Your task to perform on an android device: change the clock style Image 0: 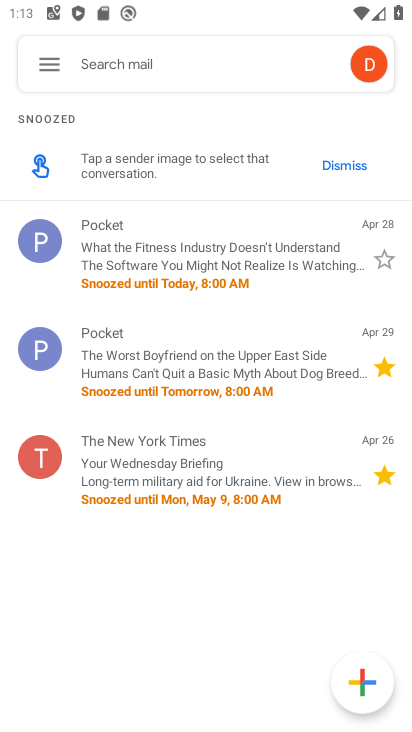
Step 0: press home button
Your task to perform on an android device: change the clock style Image 1: 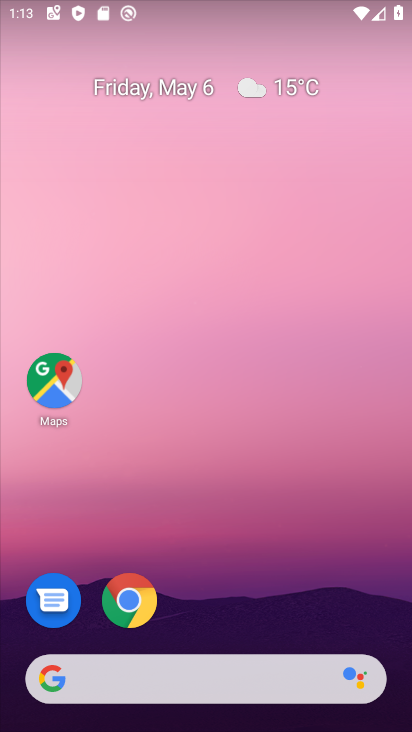
Step 1: drag from (327, 626) to (313, 83)
Your task to perform on an android device: change the clock style Image 2: 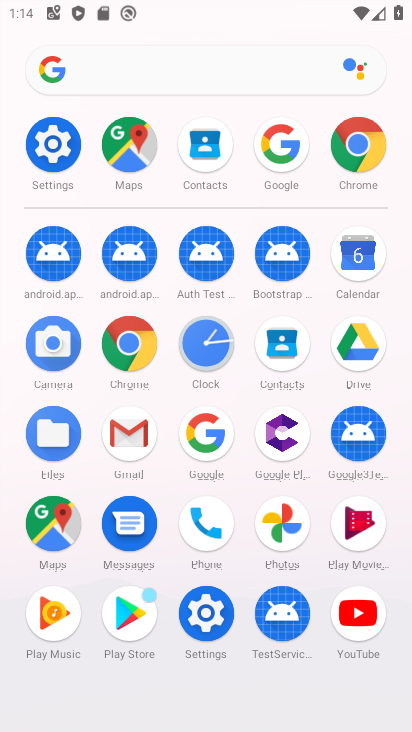
Step 2: click (216, 330)
Your task to perform on an android device: change the clock style Image 3: 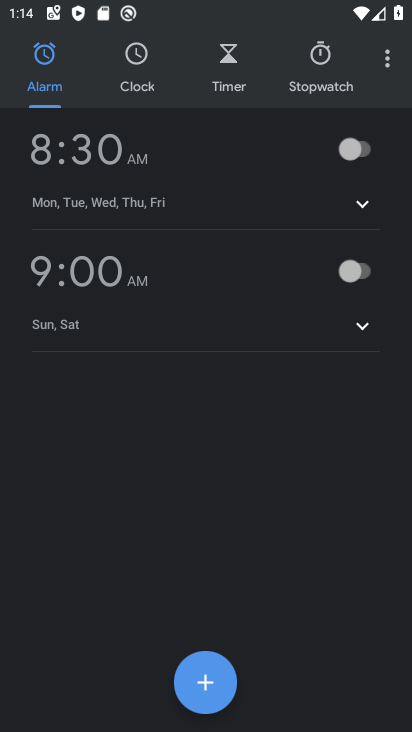
Step 3: click (385, 55)
Your task to perform on an android device: change the clock style Image 4: 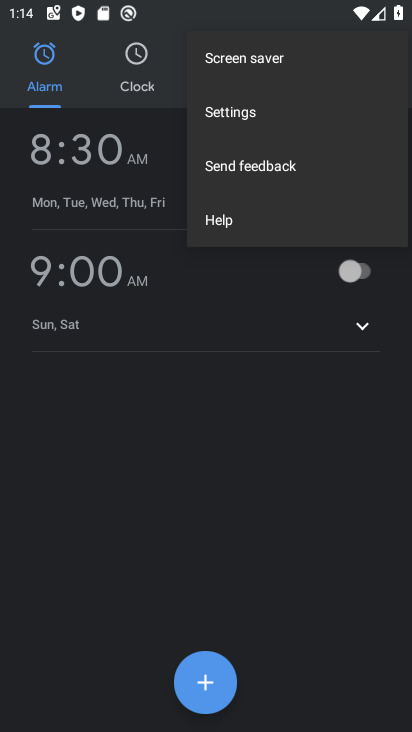
Step 4: click (308, 119)
Your task to perform on an android device: change the clock style Image 5: 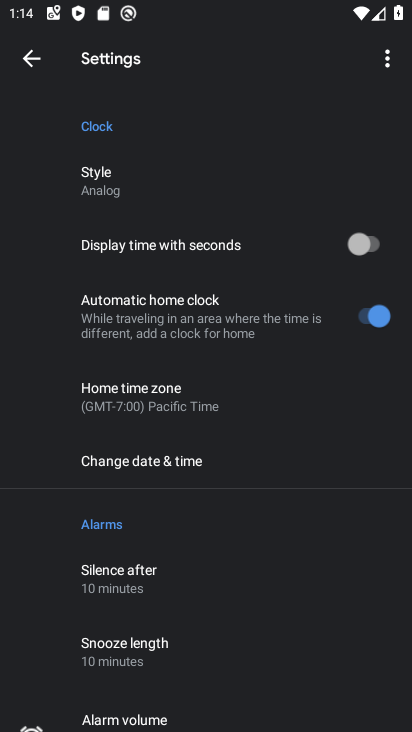
Step 5: click (128, 187)
Your task to perform on an android device: change the clock style Image 6: 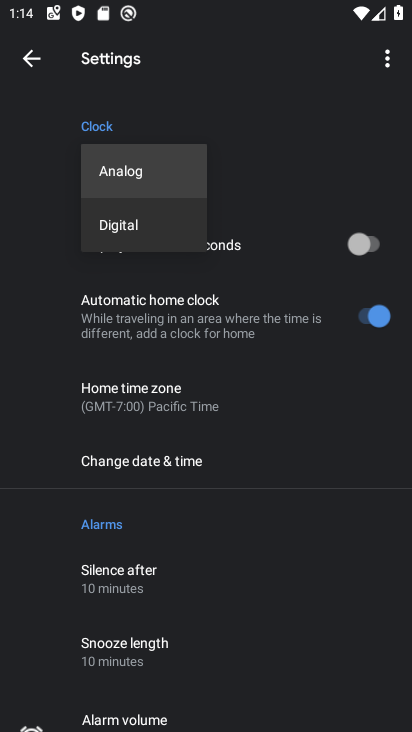
Step 6: click (160, 226)
Your task to perform on an android device: change the clock style Image 7: 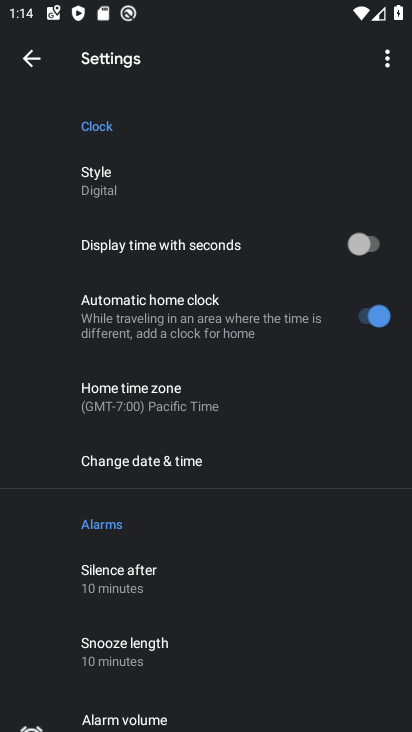
Step 7: task complete